Your task to perform on an android device: Clear all items from cart on target. Search for razer naga on target, select the first entry, add it to the cart, then select checkout. Image 0: 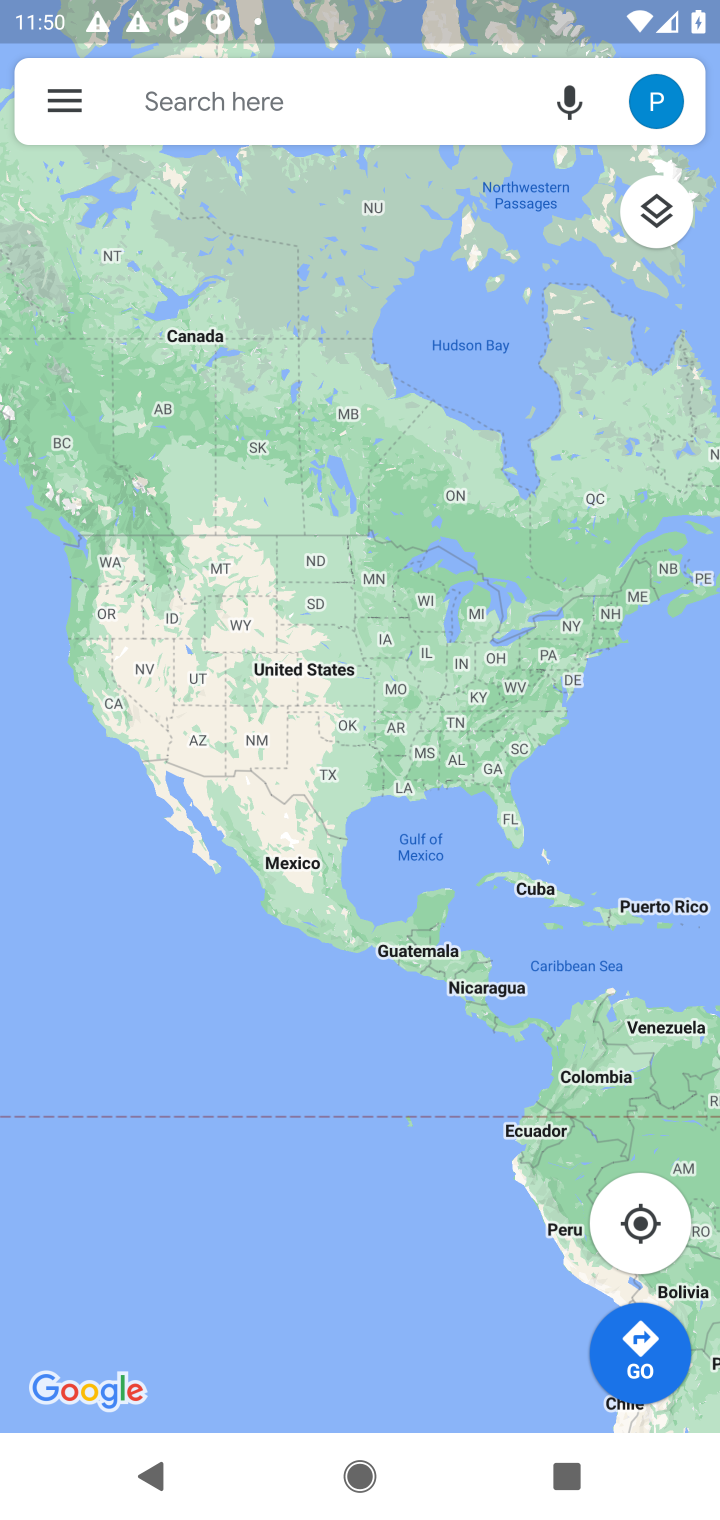
Step 0: press home button
Your task to perform on an android device: Clear all items from cart on target. Search for razer naga on target, select the first entry, add it to the cart, then select checkout. Image 1: 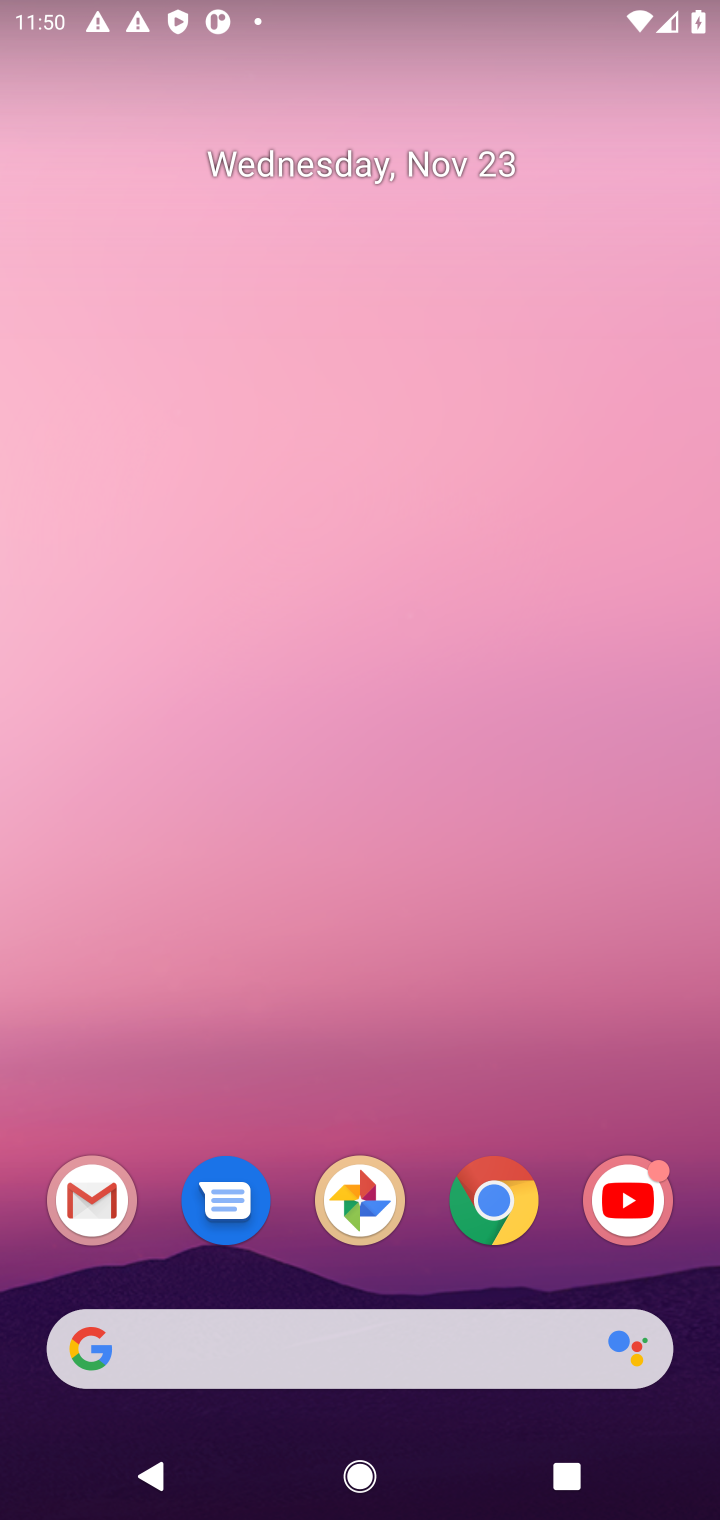
Step 1: click (277, 1318)
Your task to perform on an android device: Clear all items from cart on target. Search for razer naga on target, select the first entry, add it to the cart, then select checkout. Image 2: 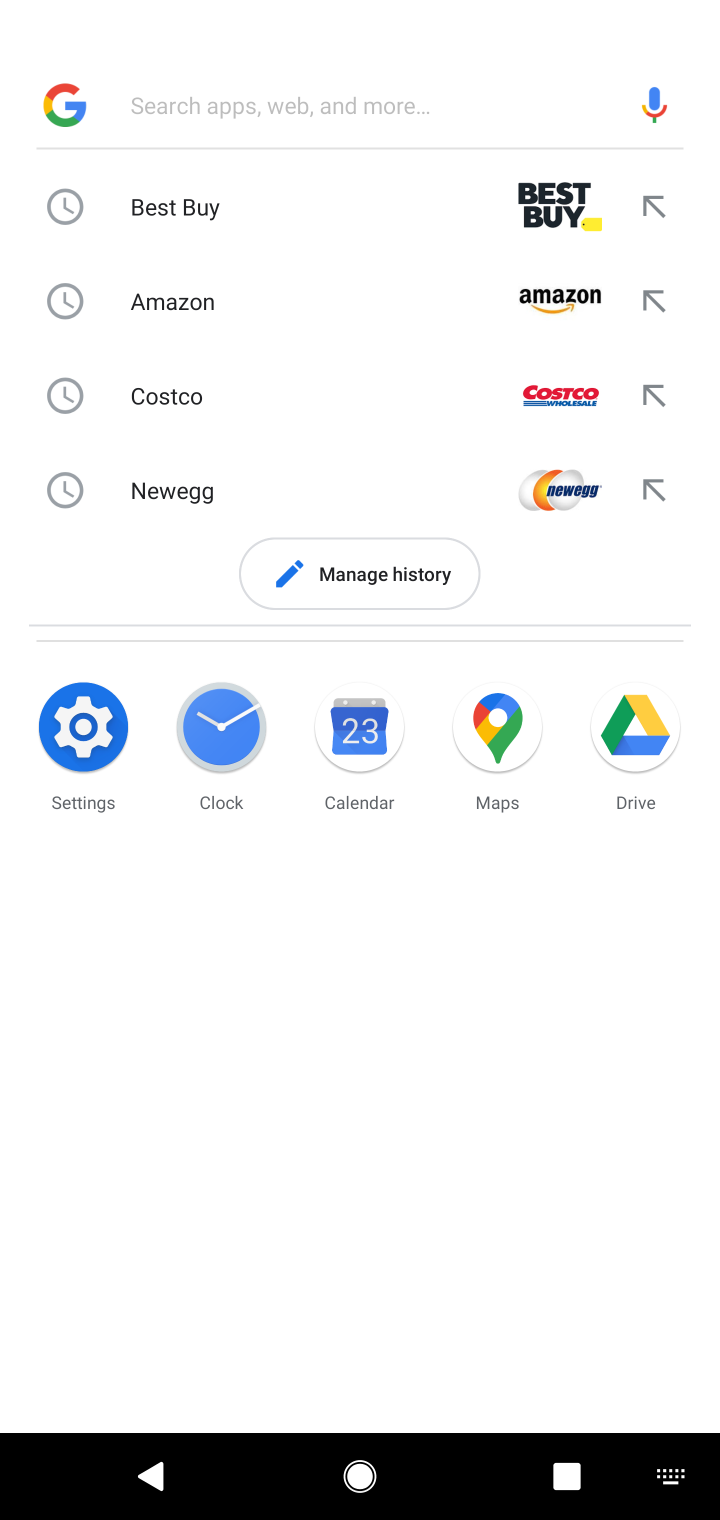
Step 2: type "target.com"
Your task to perform on an android device: Clear all items from cart on target. Search for razer naga on target, select the first entry, add it to the cart, then select checkout. Image 3: 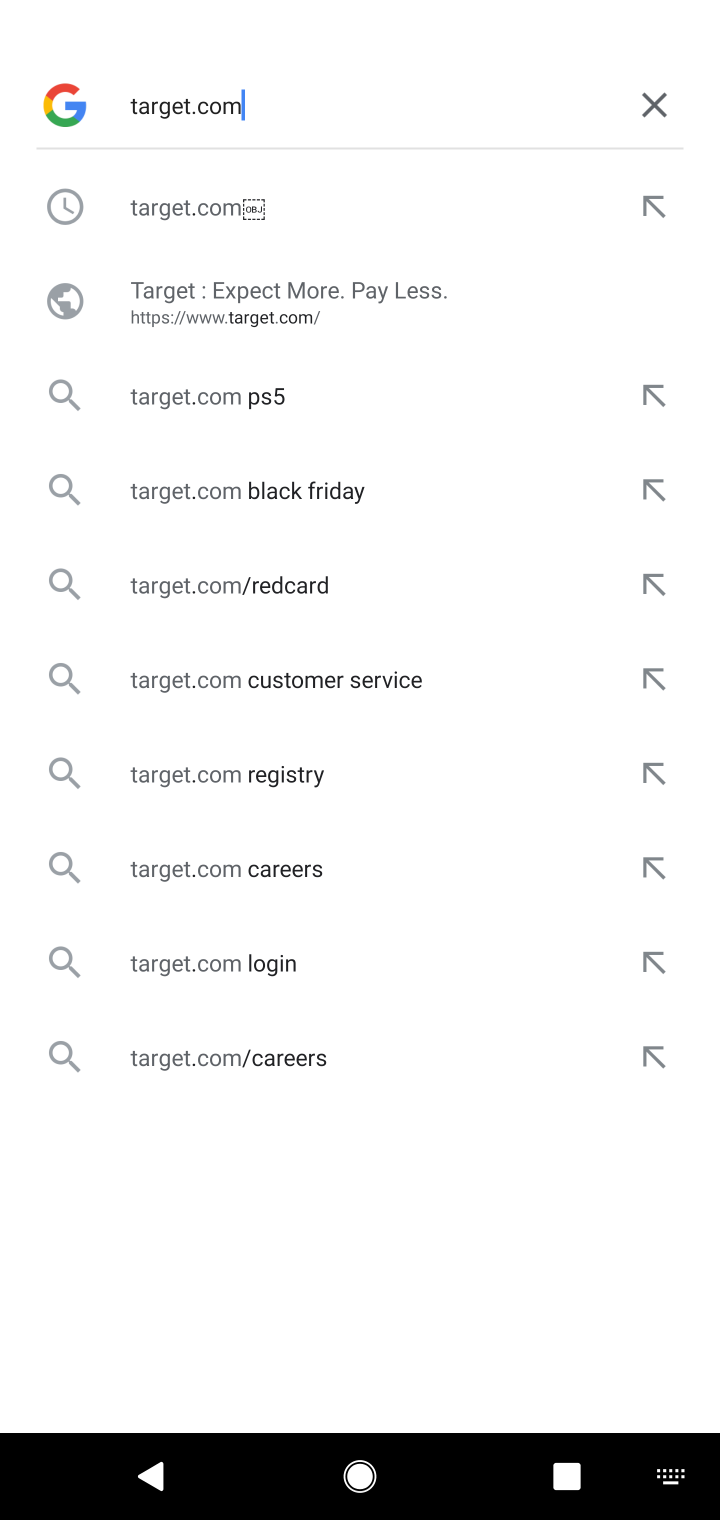
Step 3: click (358, 192)
Your task to perform on an android device: Clear all items from cart on target. Search for razer naga on target, select the first entry, add it to the cart, then select checkout. Image 4: 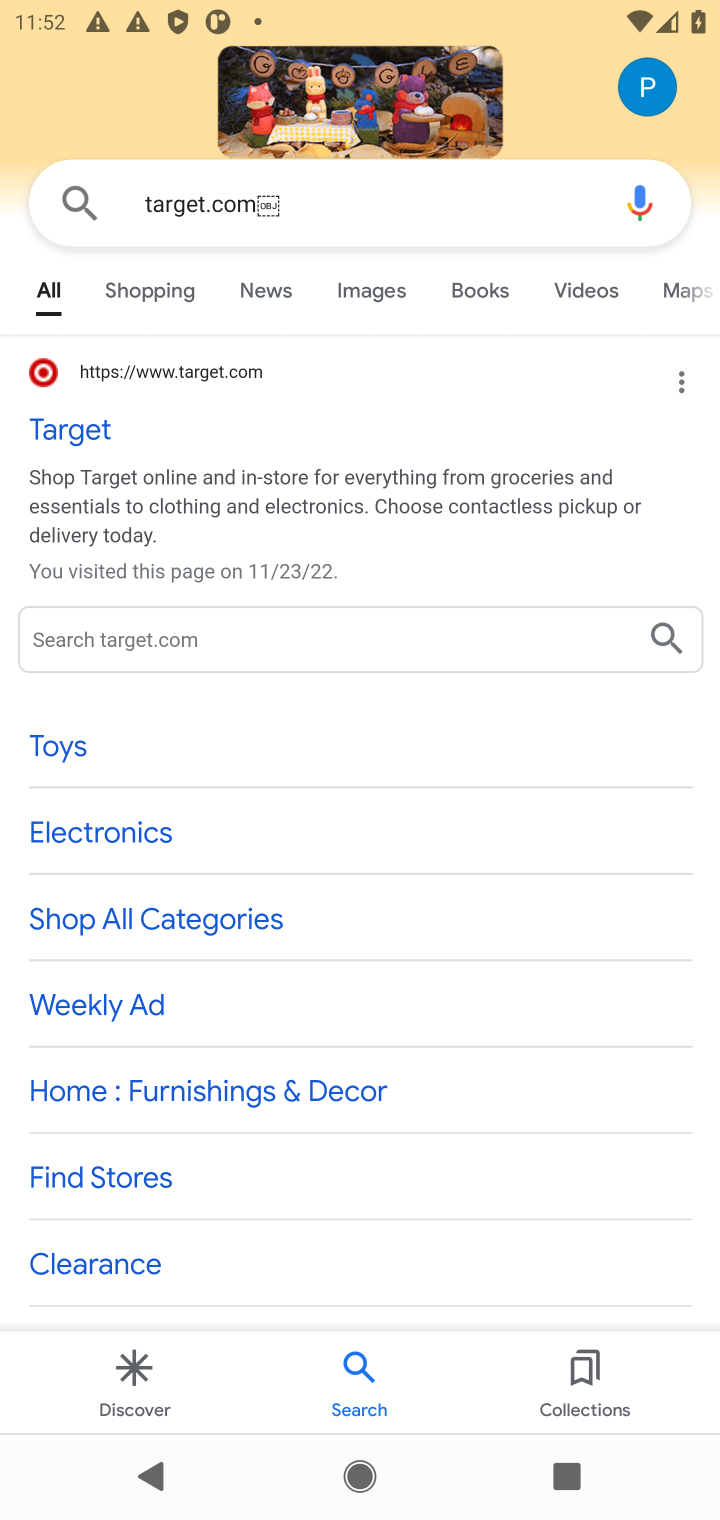
Step 4: click (54, 453)
Your task to perform on an android device: Clear all items from cart on target. Search for razer naga on target, select the first entry, add it to the cart, then select checkout. Image 5: 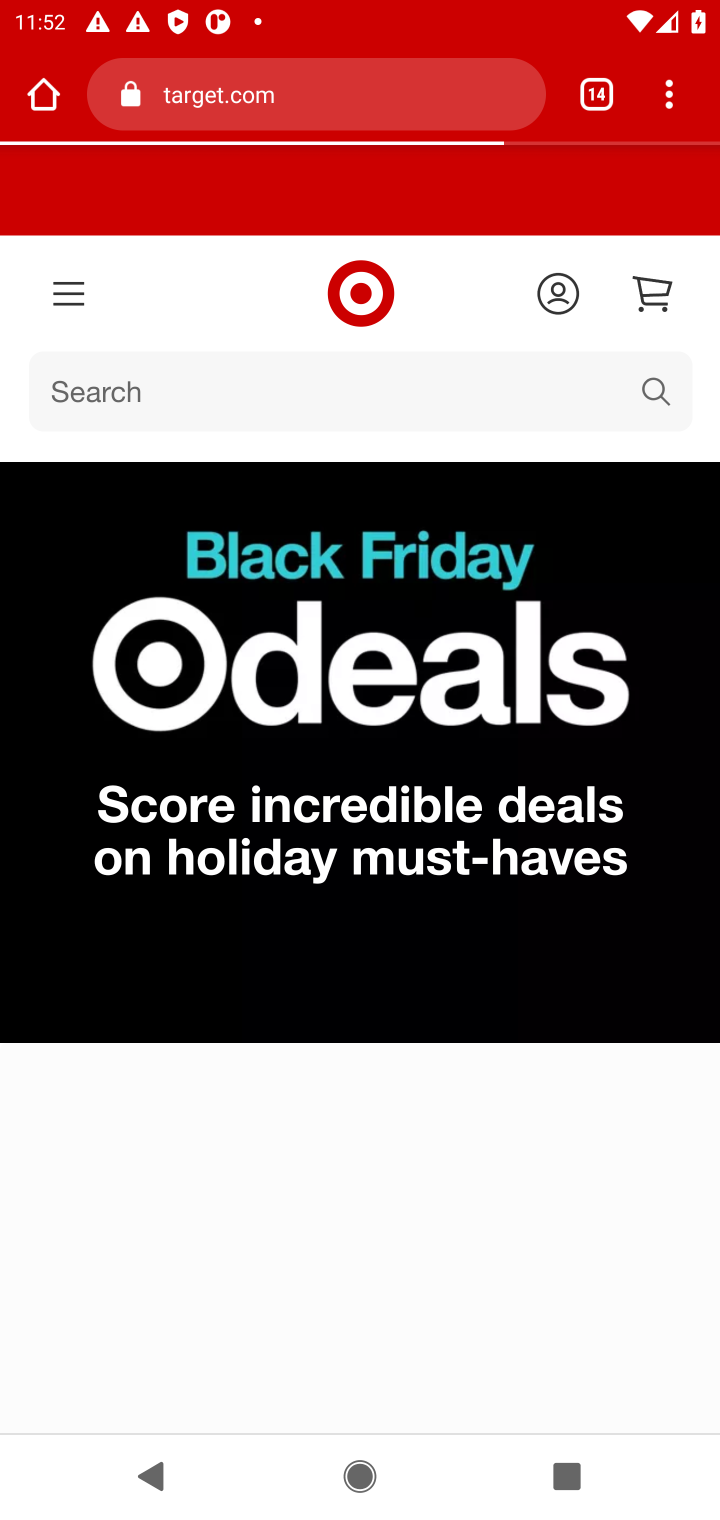
Step 5: click (501, 376)
Your task to perform on an android device: Clear all items from cart on target. Search for razer naga on target, select the first entry, add it to the cart, then select checkout. Image 6: 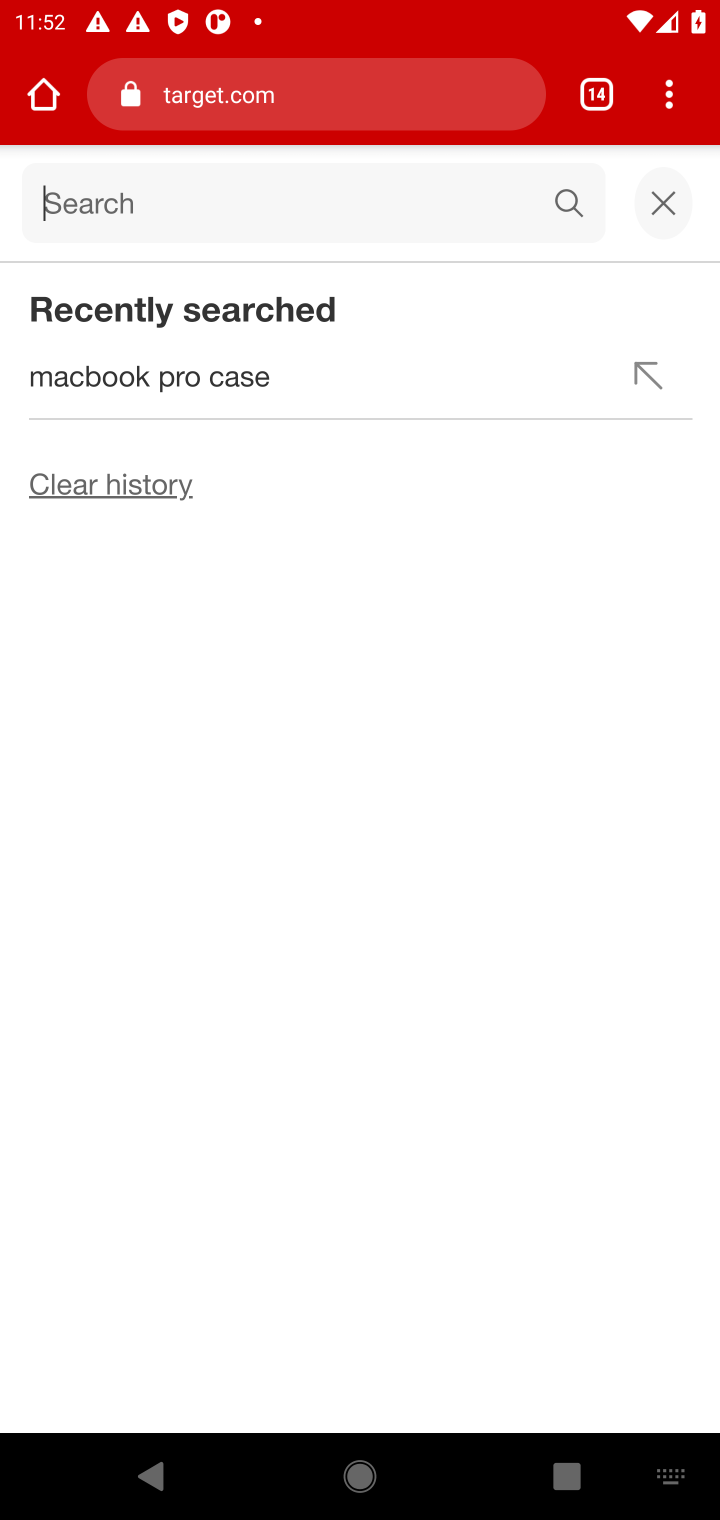
Step 6: type "razer naga"
Your task to perform on an android device: Clear all items from cart on target. Search for razer naga on target, select the first entry, add it to the cart, then select checkout. Image 7: 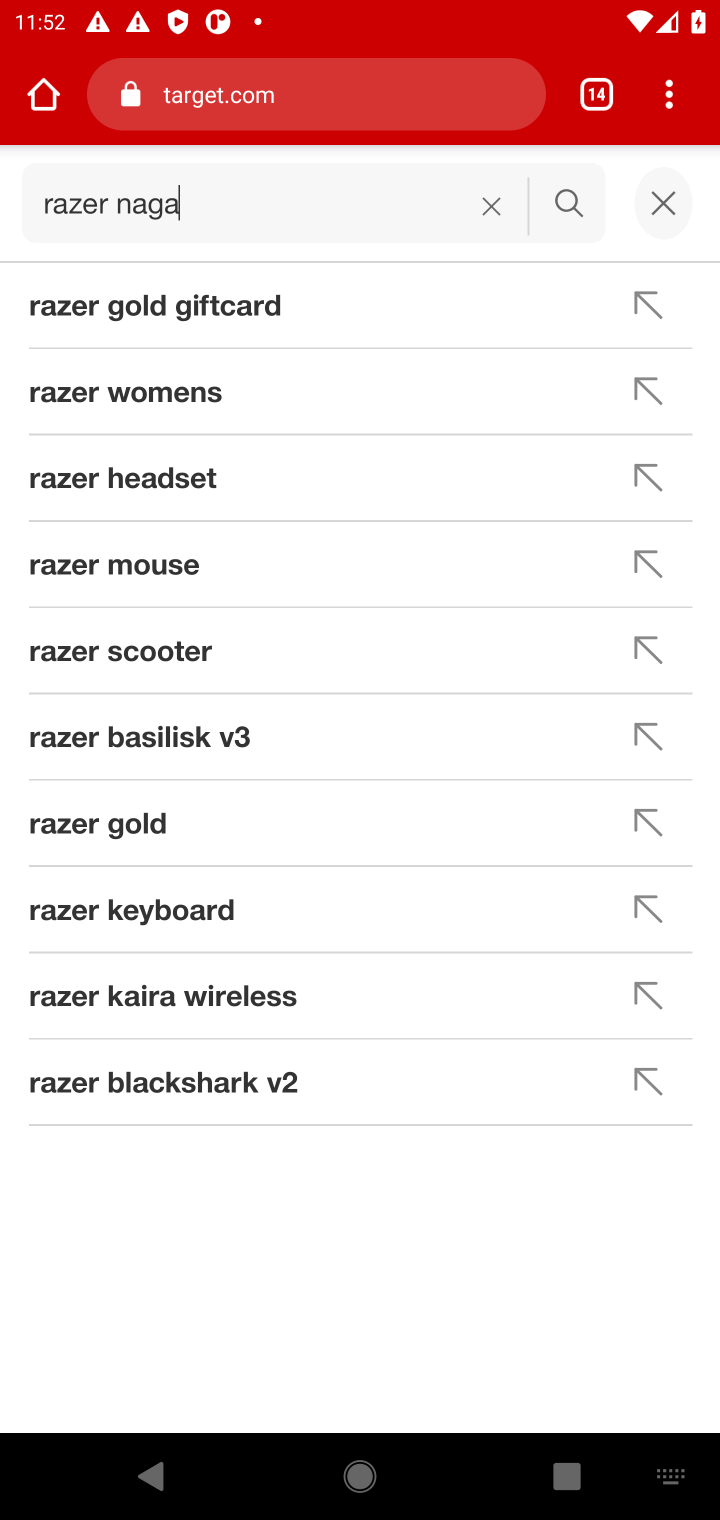
Step 7: click (554, 211)
Your task to perform on an android device: Clear all items from cart on target. Search for razer naga on target, select the first entry, add it to the cart, then select checkout. Image 8: 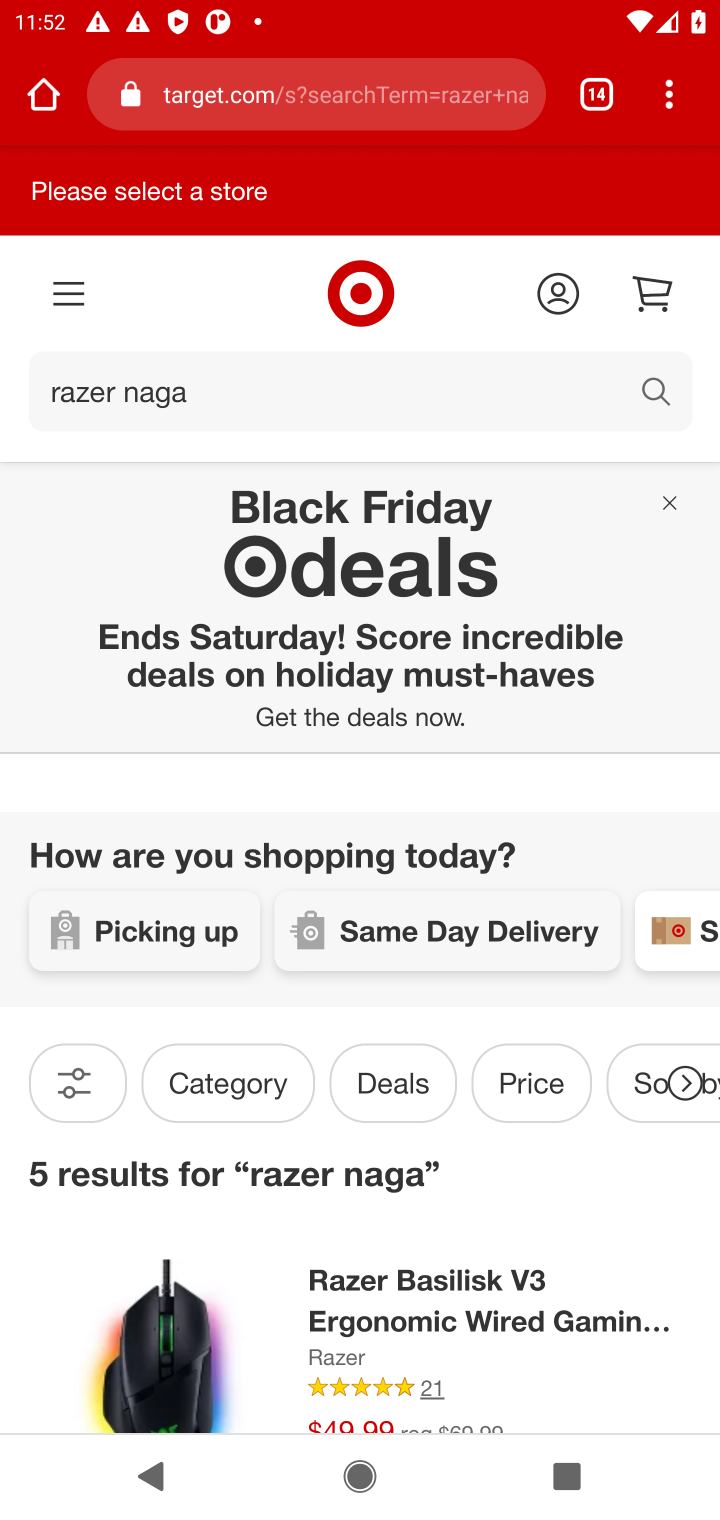
Step 8: click (406, 1291)
Your task to perform on an android device: Clear all items from cart on target. Search for razer naga on target, select the first entry, add it to the cart, then select checkout. Image 9: 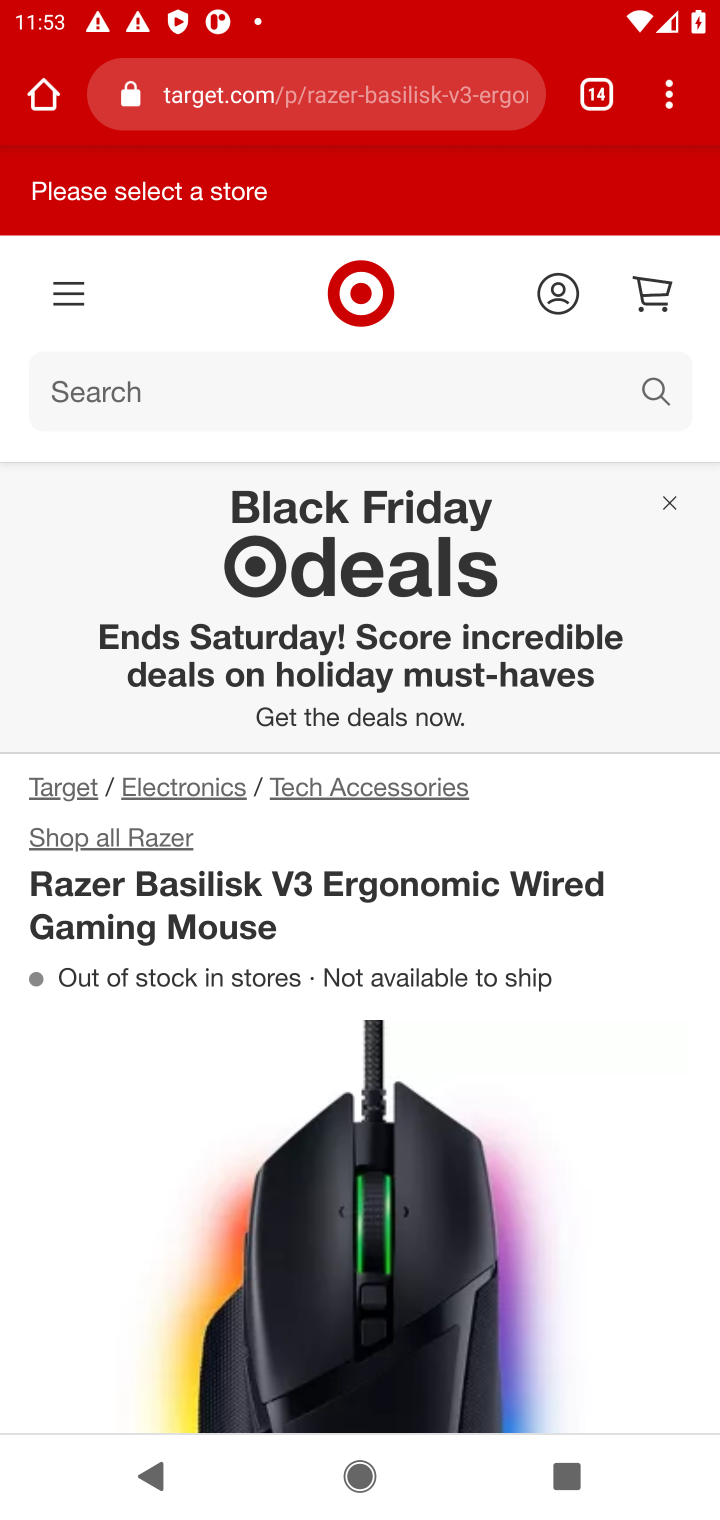
Step 9: task complete